Your task to perform on an android device: move an email to a new category in the gmail app Image 0: 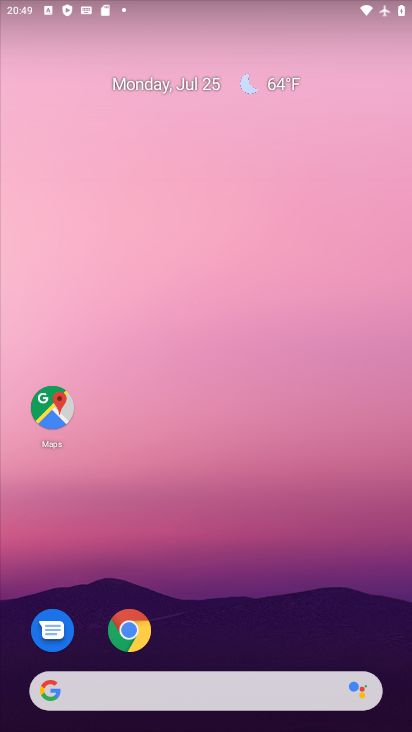
Step 0: drag from (393, 649) to (334, 154)
Your task to perform on an android device: move an email to a new category in the gmail app Image 1: 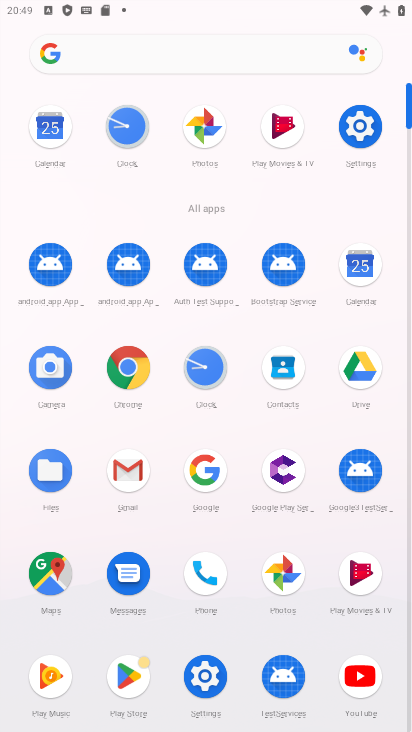
Step 1: click (126, 471)
Your task to perform on an android device: move an email to a new category in the gmail app Image 2: 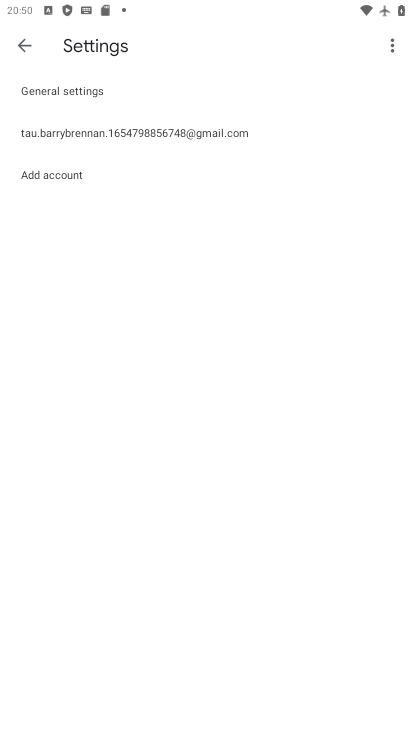
Step 2: press back button
Your task to perform on an android device: move an email to a new category in the gmail app Image 3: 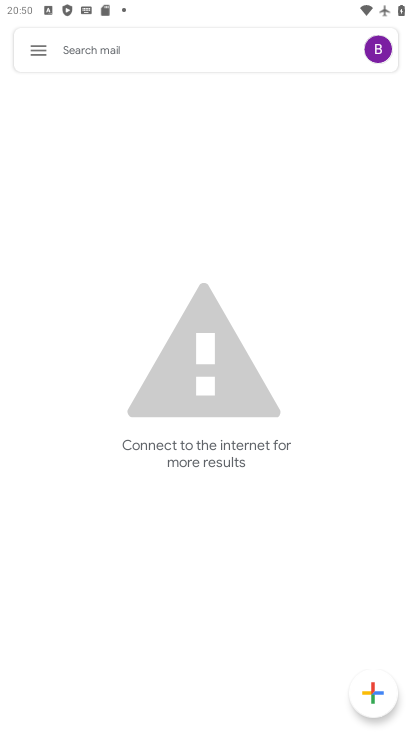
Step 3: click (39, 53)
Your task to perform on an android device: move an email to a new category in the gmail app Image 4: 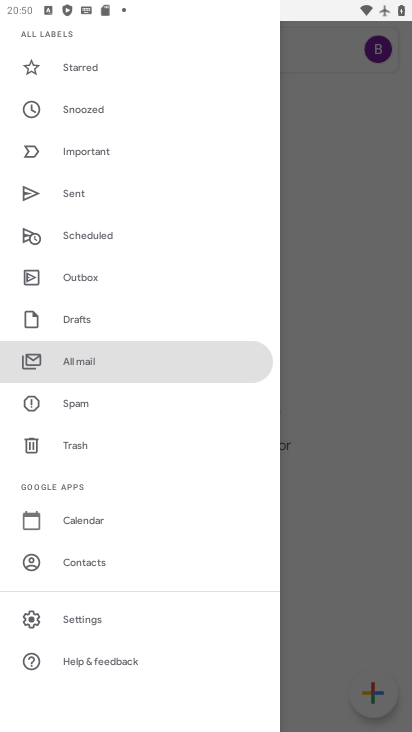
Step 4: click (89, 362)
Your task to perform on an android device: move an email to a new category in the gmail app Image 5: 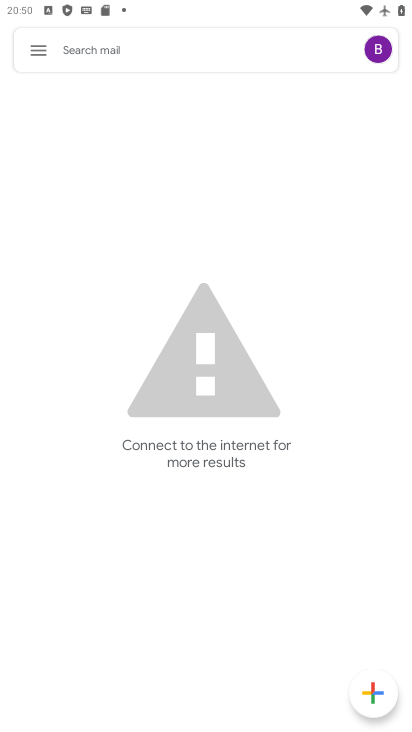
Step 5: task complete